Your task to perform on an android device: Go to internet settings Image 0: 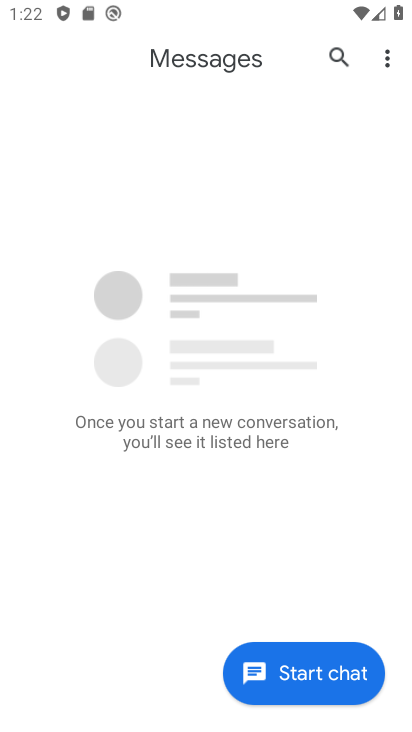
Step 0: press home button
Your task to perform on an android device: Go to internet settings Image 1: 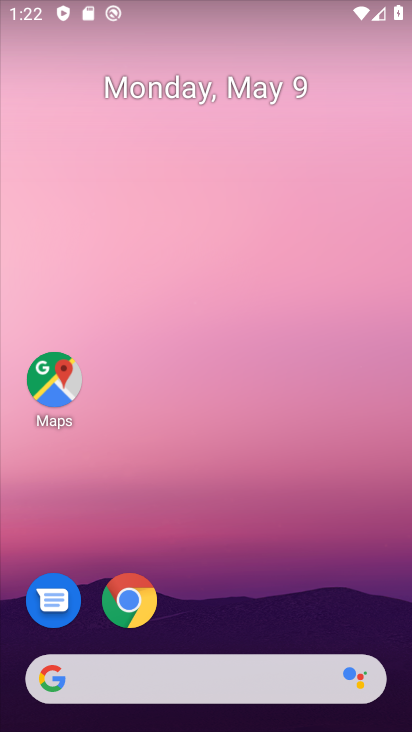
Step 1: drag from (239, 691) to (227, 42)
Your task to perform on an android device: Go to internet settings Image 2: 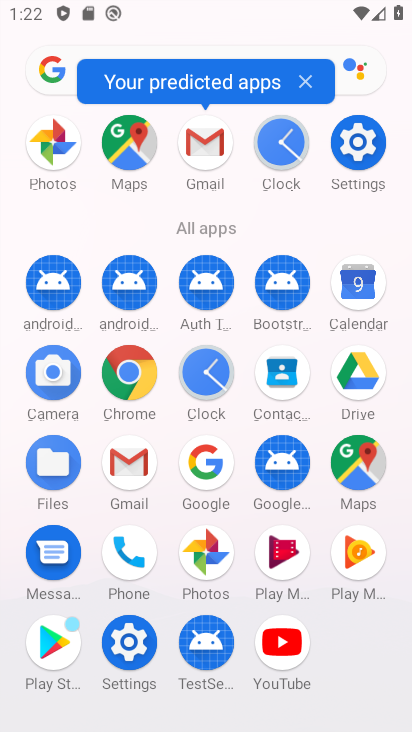
Step 2: click (353, 141)
Your task to perform on an android device: Go to internet settings Image 3: 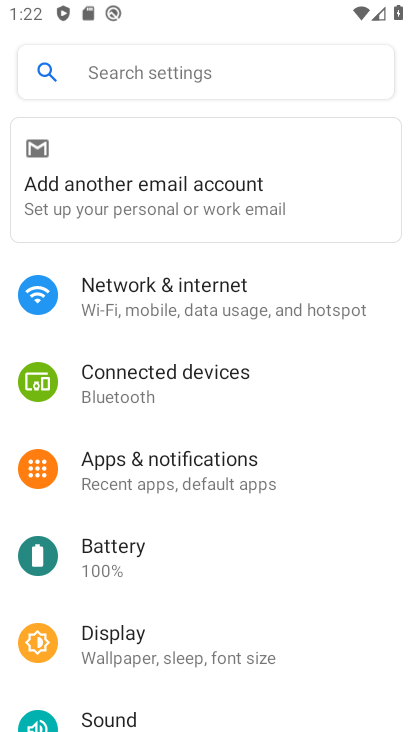
Step 3: click (199, 294)
Your task to perform on an android device: Go to internet settings Image 4: 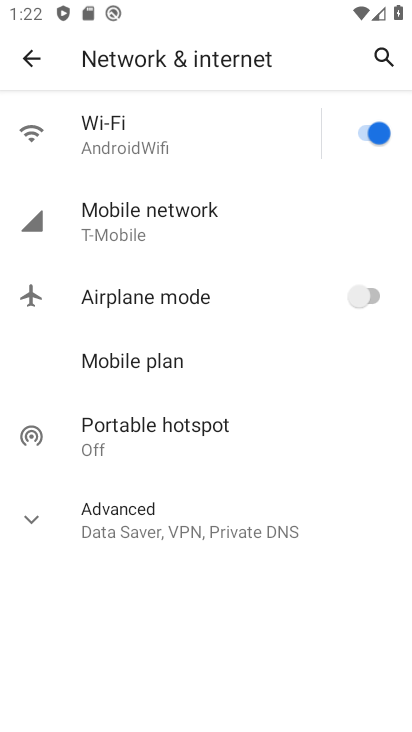
Step 4: task complete